Your task to perform on an android device: Show me recent news Image 0: 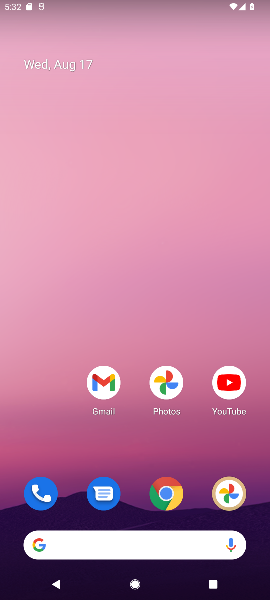
Step 0: press home button
Your task to perform on an android device: Show me recent news Image 1: 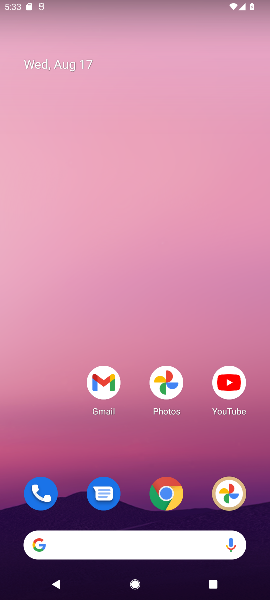
Step 1: drag from (141, 514) to (129, 94)
Your task to perform on an android device: Show me recent news Image 2: 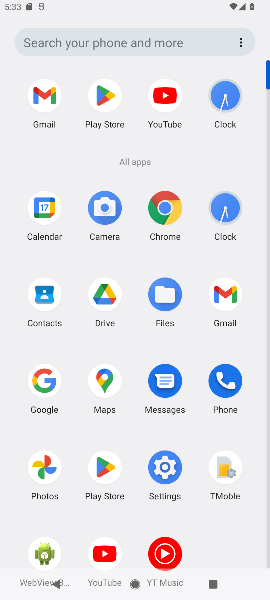
Step 2: click (61, 393)
Your task to perform on an android device: Show me recent news Image 3: 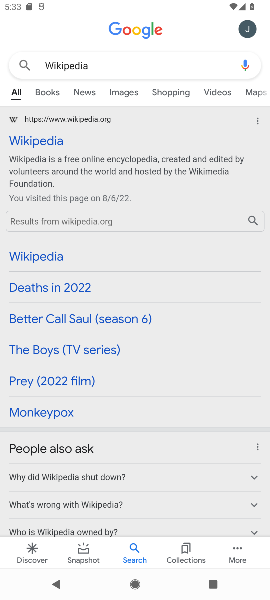
Step 3: click (169, 65)
Your task to perform on an android device: Show me recent news Image 4: 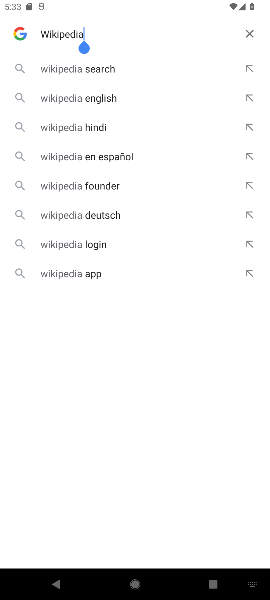
Step 4: click (256, 33)
Your task to perform on an android device: Show me recent news Image 5: 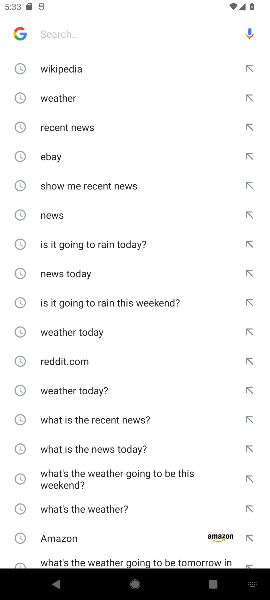
Step 5: type " recent news"
Your task to perform on an android device: Show me recent news Image 6: 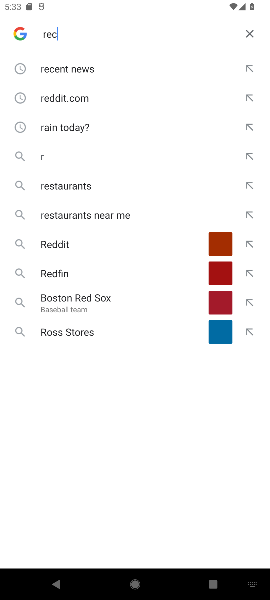
Step 6: press enter
Your task to perform on an android device: Show me recent news Image 7: 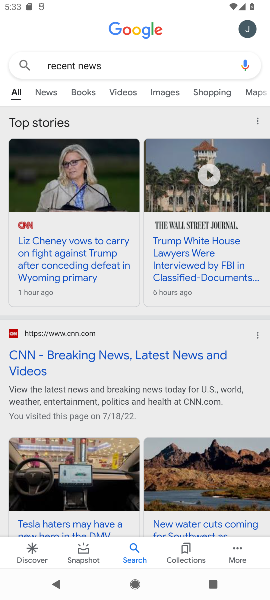
Step 7: task complete